Your task to perform on an android device: Go to sound settings Image 0: 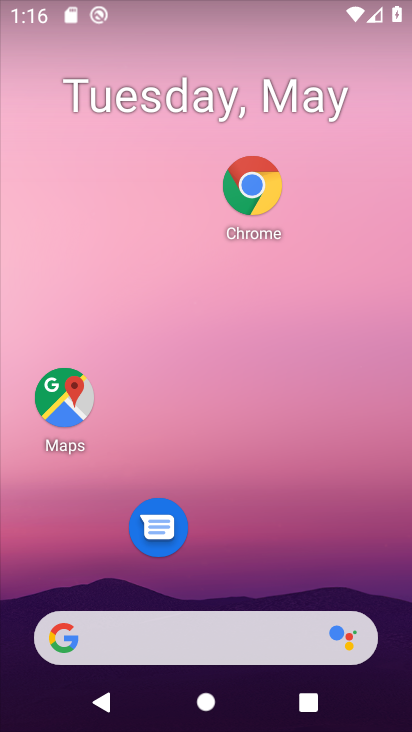
Step 0: drag from (264, 455) to (199, 68)
Your task to perform on an android device: Go to sound settings Image 1: 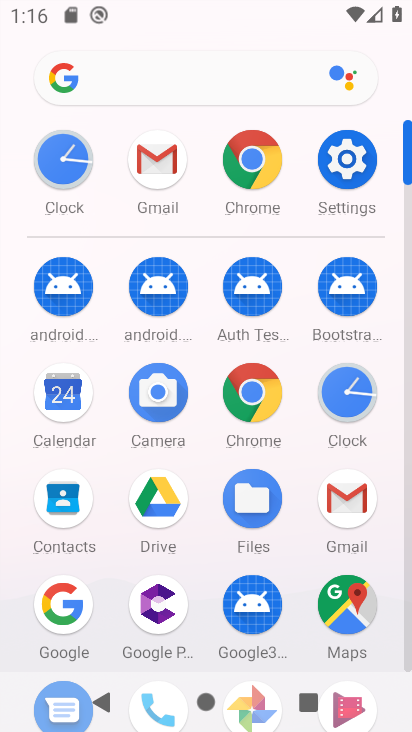
Step 1: click (347, 151)
Your task to perform on an android device: Go to sound settings Image 2: 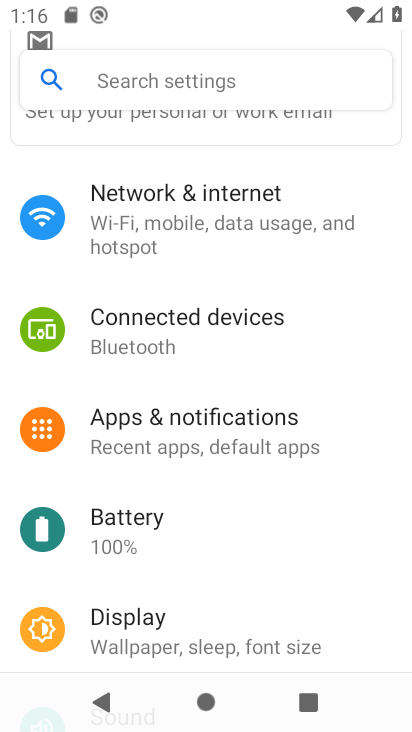
Step 2: drag from (230, 579) to (181, 147)
Your task to perform on an android device: Go to sound settings Image 3: 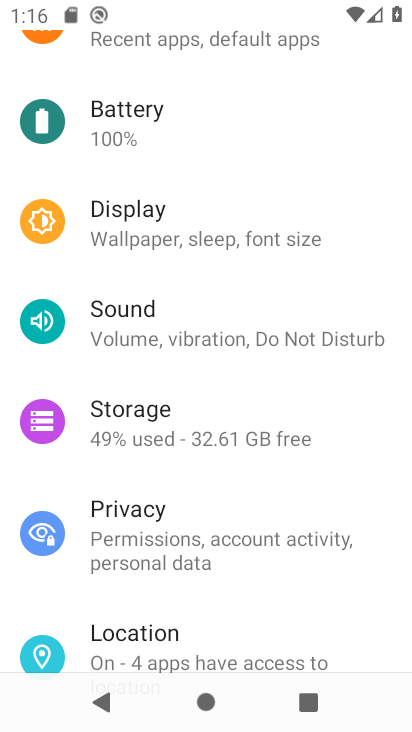
Step 3: click (109, 320)
Your task to perform on an android device: Go to sound settings Image 4: 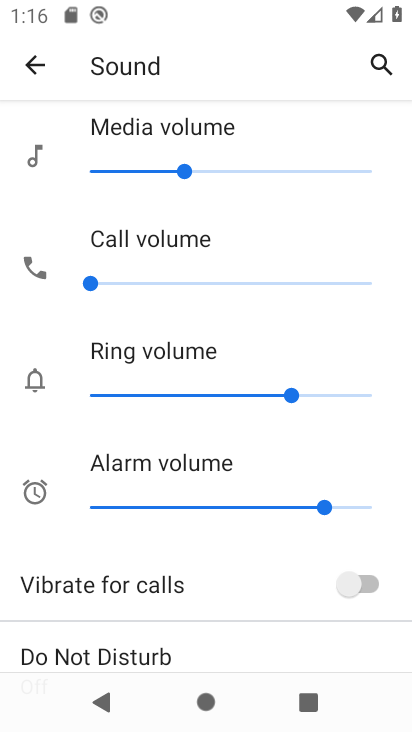
Step 4: task complete